Your task to perform on an android device: turn smart compose on in the gmail app Image 0: 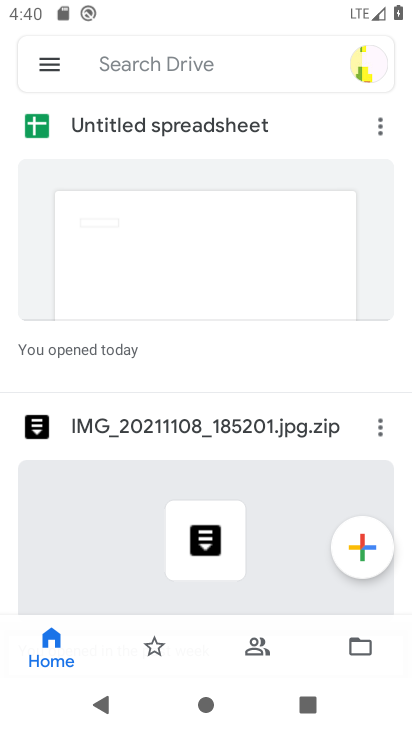
Step 0: press home button
Your task to perform on an android device: turn smart compose on in the gmail app Image 1: 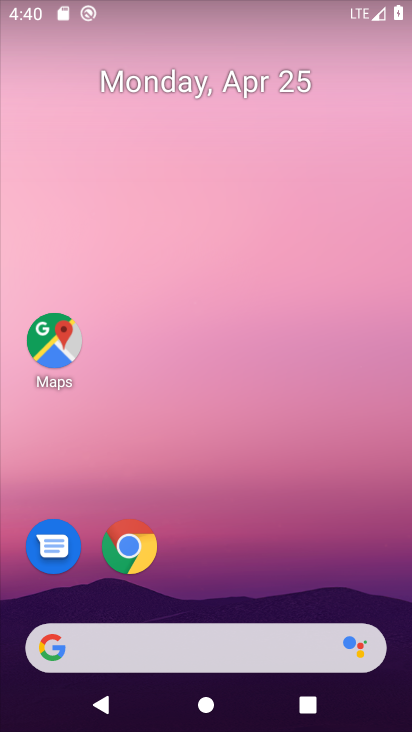
Step 1: drag from (190, 578) to (199, 50)
Your task to perform on an android device: turn smart compose on in the gmail app Image 2: 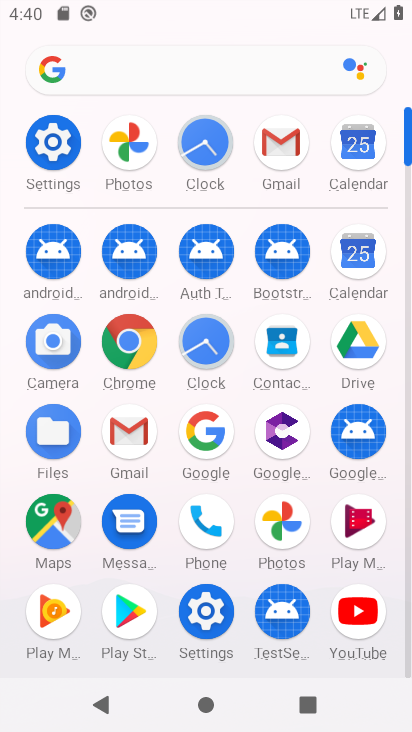
Step 2: click (290, 141)
Your task to perform on an android device: turn smart compose on in the gmail app Image 3: 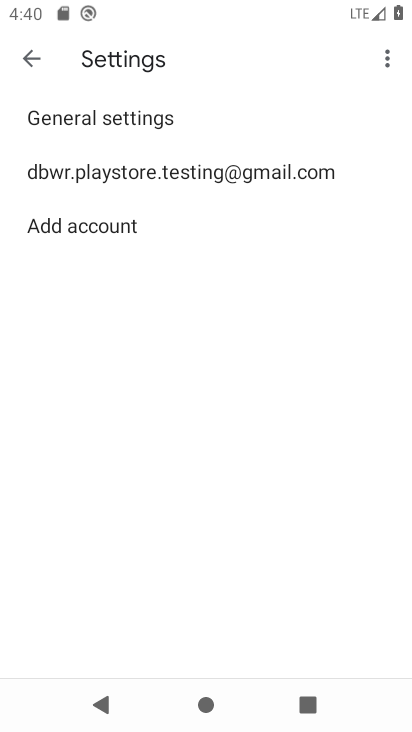
Step 3: click (54, 178)
Your task to perform on an android device: turn smart compose on in the gmail app Image 4: 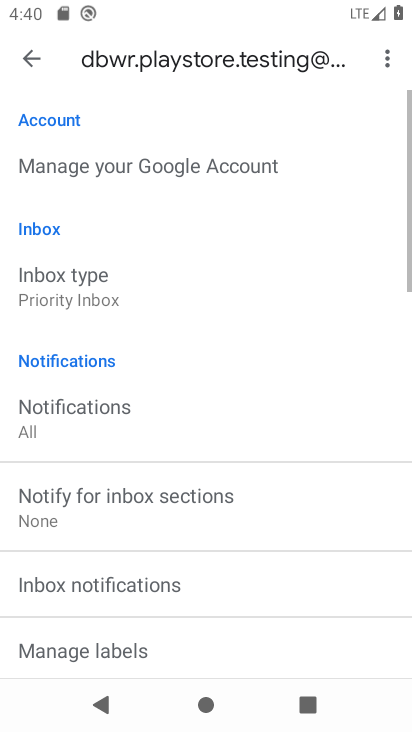
Step 4: task complete